Your task to perform on an android device: Open maps Image 0: 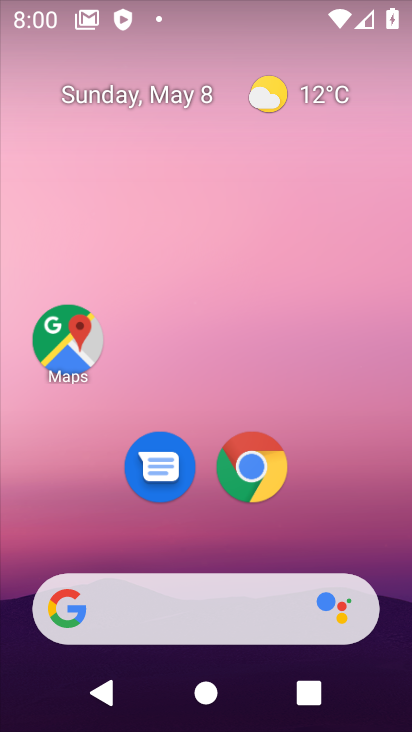
Step 0: click (74, 334)
Your task to perform on an android device: Open maps Image 1: 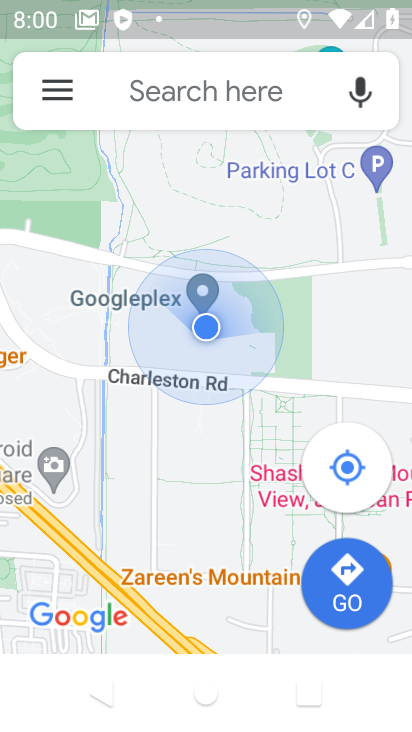
Step 1: task complete